Your task to perform on an android device: open app "DuckDuckGo Privacy Browser" (install if not already installed) Image 0: 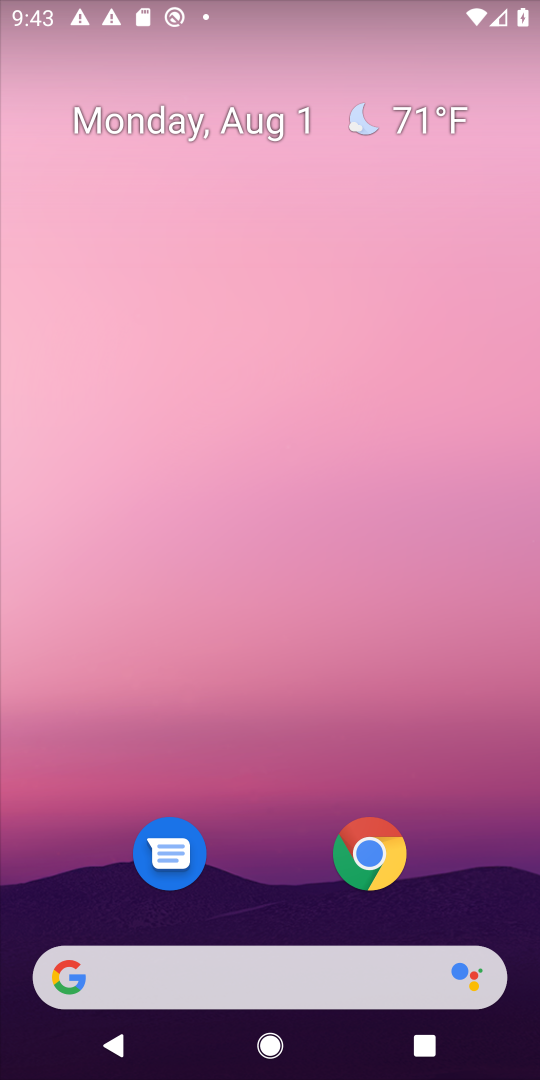
Step 0: drag from (276, 861) to (265, 182)
Your task to perform on an android device: open app "DuckDuckGo Privacy Browser" (install if not already installed) Image 1: 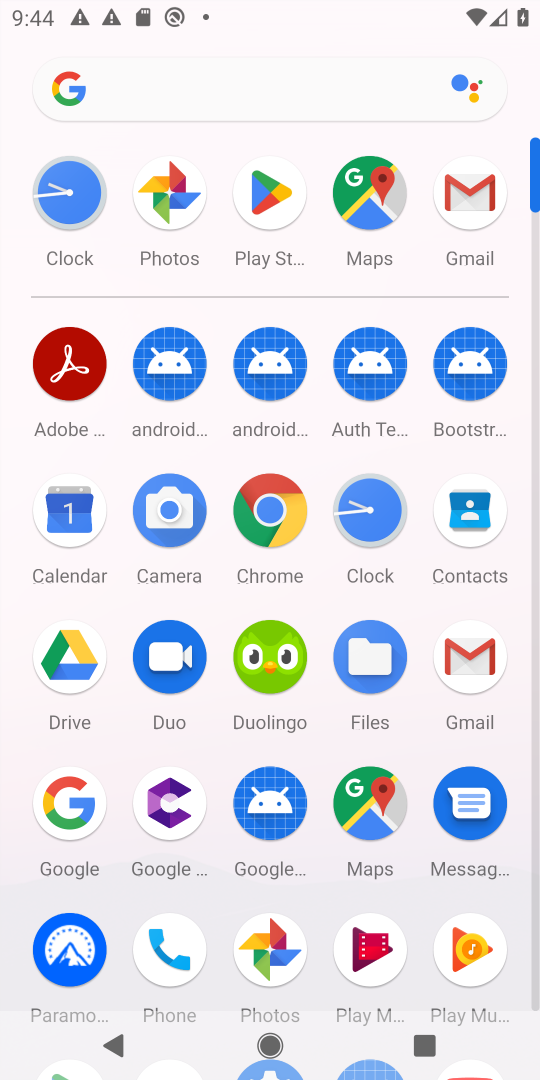
Step 1: click (263, 185)
Your task to perform on an android device: open app "DuckDuckGo Privacy Browser" (install if not already installed) Image 2: 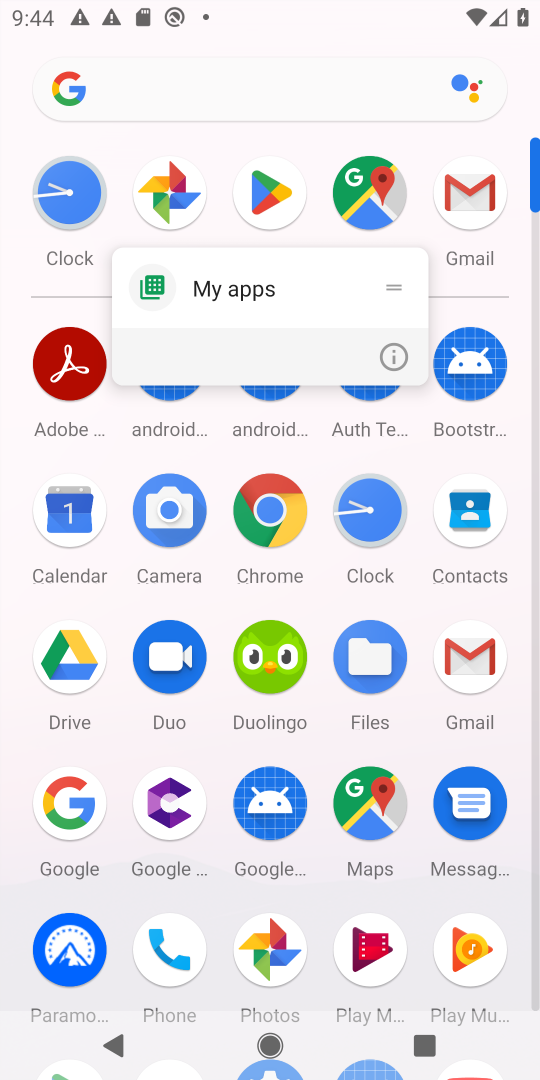
Step 2: click (398, 350)
Your task to perform on an android device: open app "DuckDuckGo Privacy Browser" (install if not already installed) Image 3: 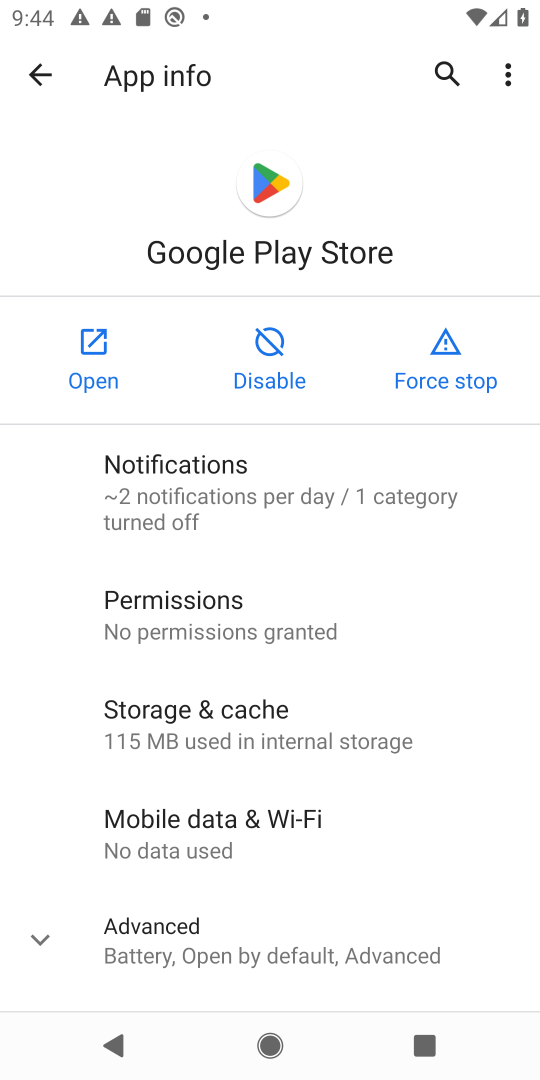
Step 3: click (90, 348)
Your task to perform on an android device: open app "DuckDuckGo Privacy Browser" (install if not already installed) Image 4: 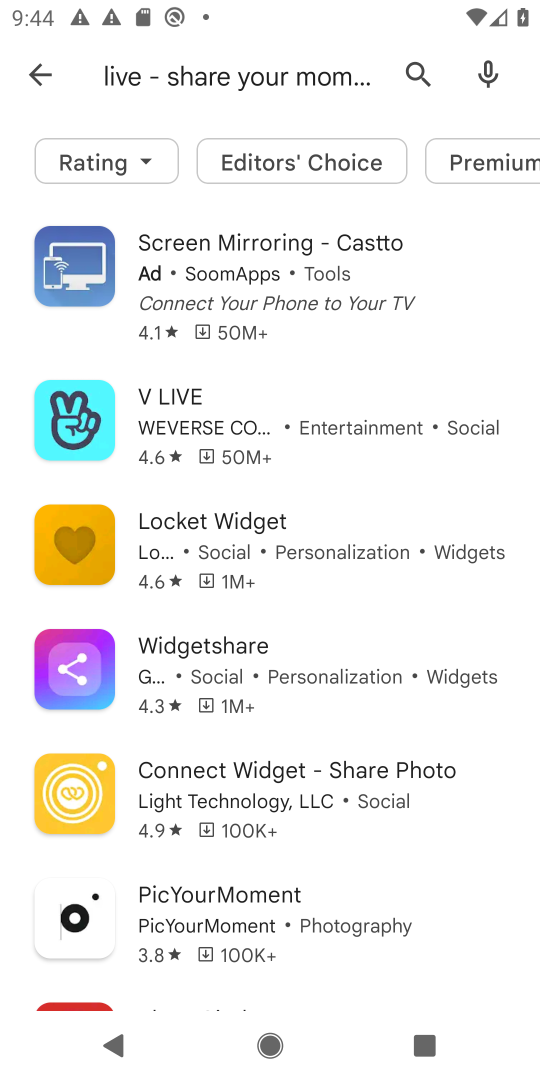
Step 4: click (416, 66)
Your task to perform on an android device: open app "DuckDuckGo Privacy Browser" (install if not already installed) Image 5: 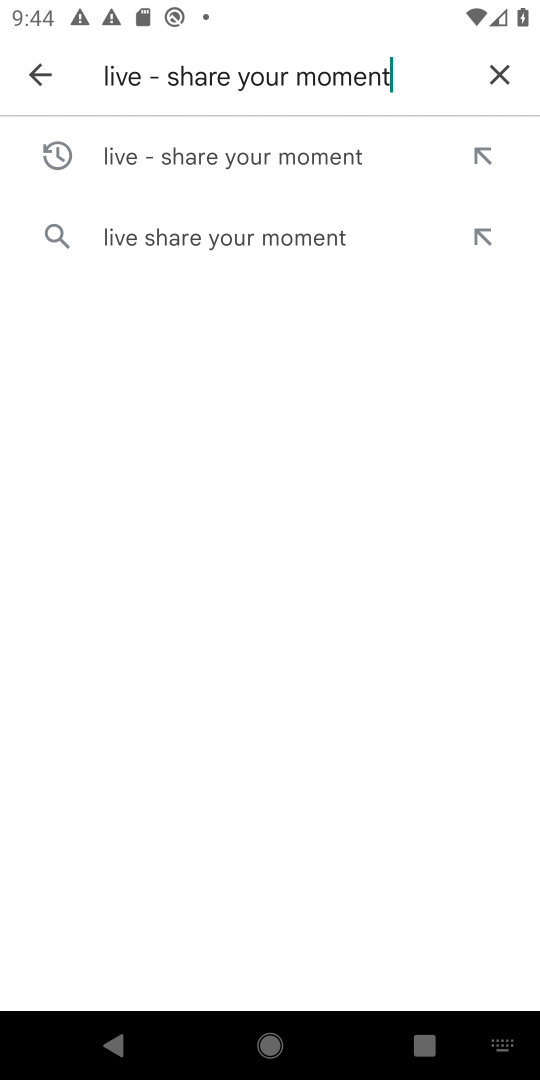
Step 5: click (503, 74)
Your task to perform on an android device: open app "DuckDuckGo Privacy Browser" (install if not already installed) Image 6: 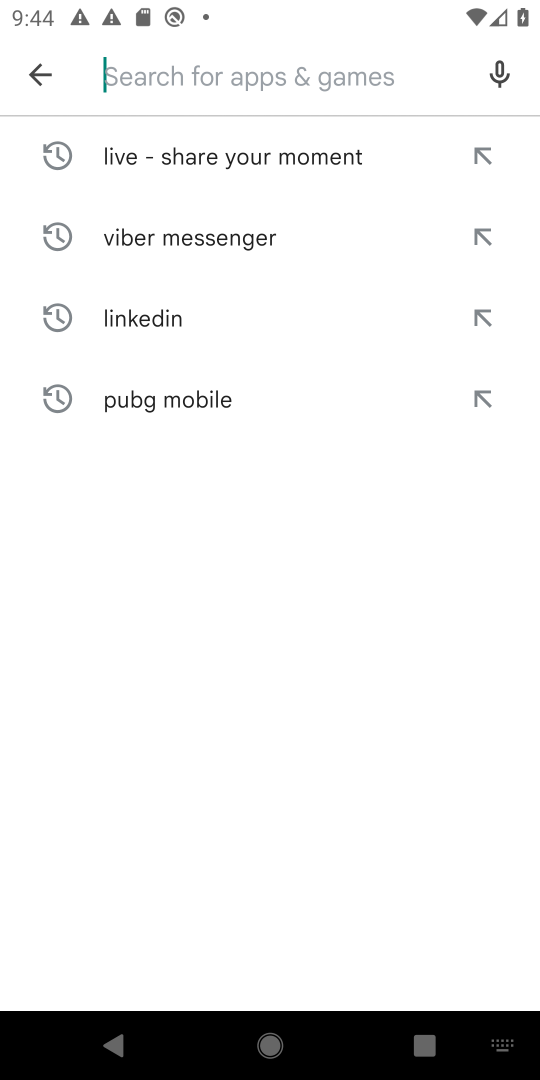
Step 6: type "DuckDuckGo Privacy Browser"
Your task to perform on an android device: open app "DuckDuckGo Privacy Browser" (install if not already installed) Image 7: 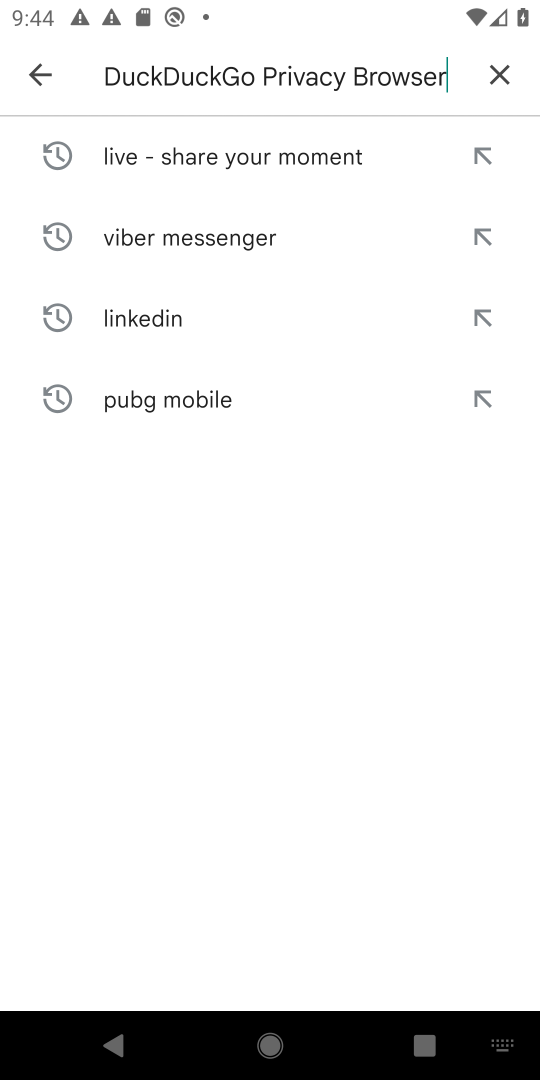
Step 7: type ""
Your task to perform on an android device: open app "DuckDuckGo Privacy Browser" (install if not already installed) Image 8: 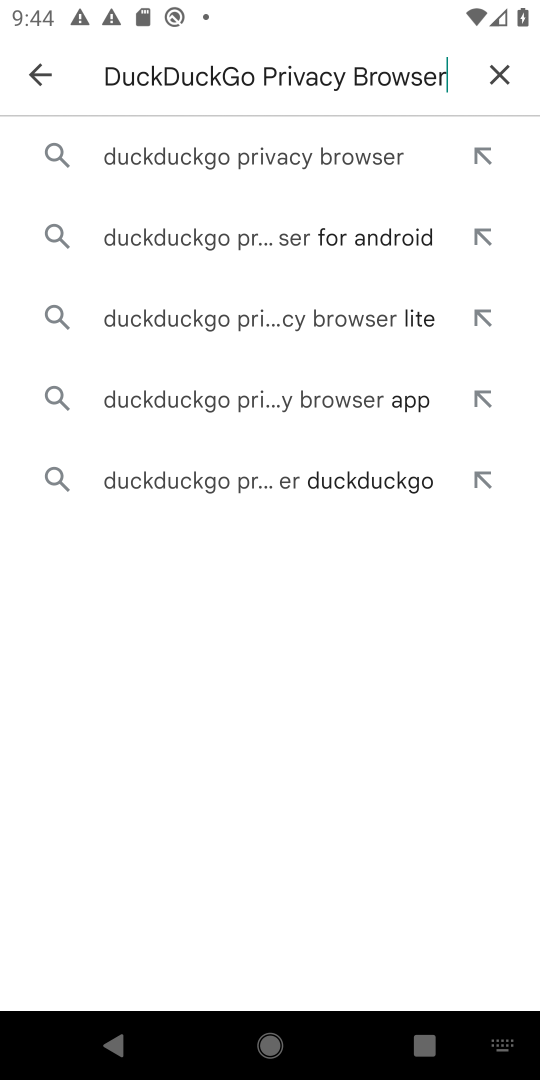
Step 8: click (156, 156)
Your task to perform on an android device: open app "DuckDuckGo Privacy Browser" (install if not already installed) Image 9: 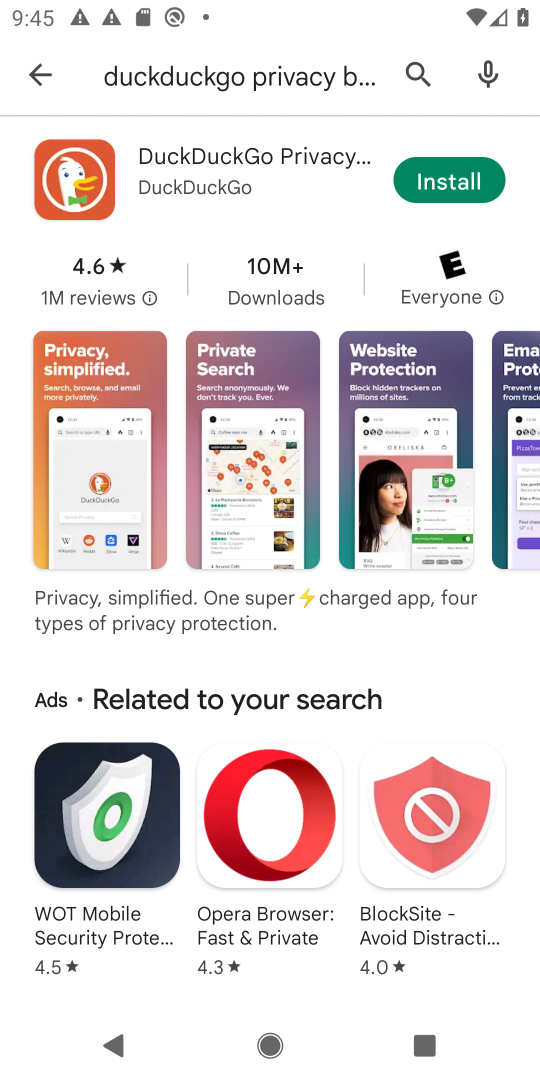
Step 9: click (250, 156)
Your task to perform on an android device: open app "DuckDuckGo Privacy Browser" (install if not already installed) Image 10: 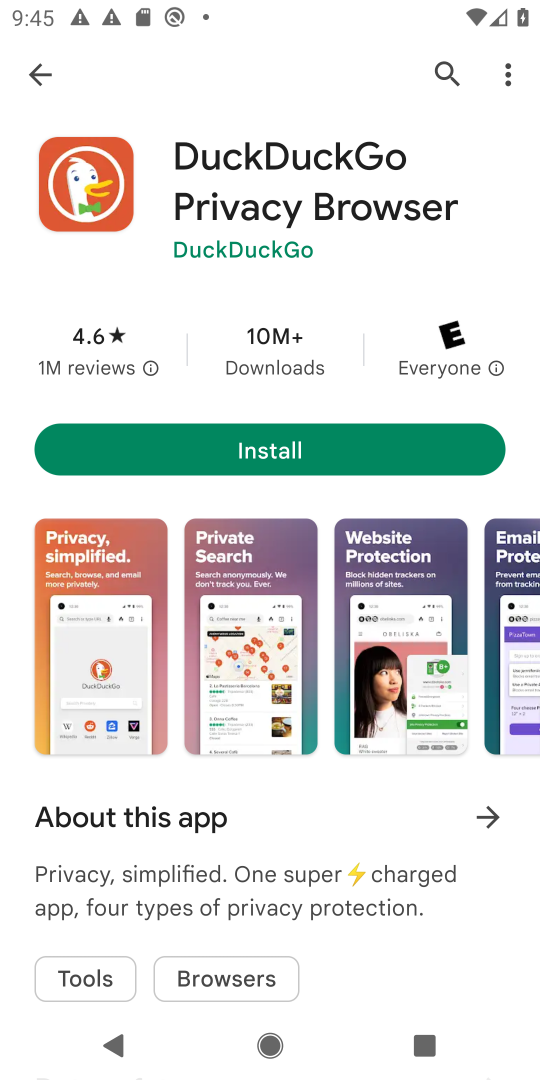
Step 10: task complete